Your task to perform on an android device: add a label to a message in the gmail app Image 0: 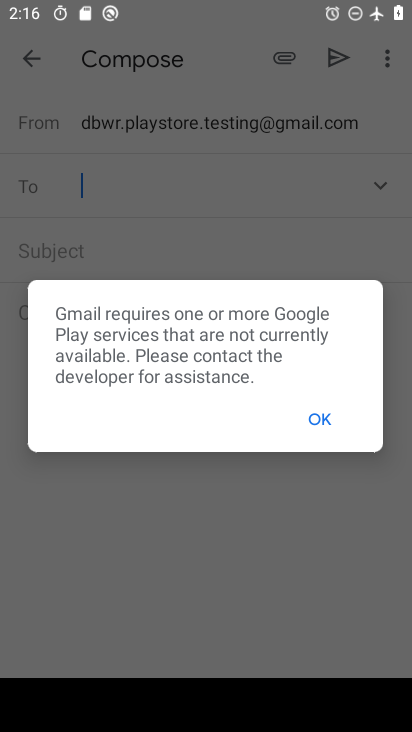
Step 0: press home button
Your task to perform on an android device: add a label to a message in the gmail app Image 1: 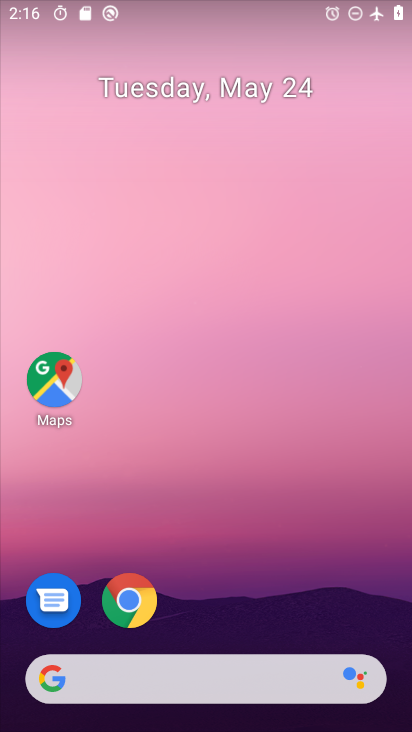
Step 1: drag from (259, 560) to (280, 157)
Your task to perform on an android device: add a label to a message in the gmail app Image 2: 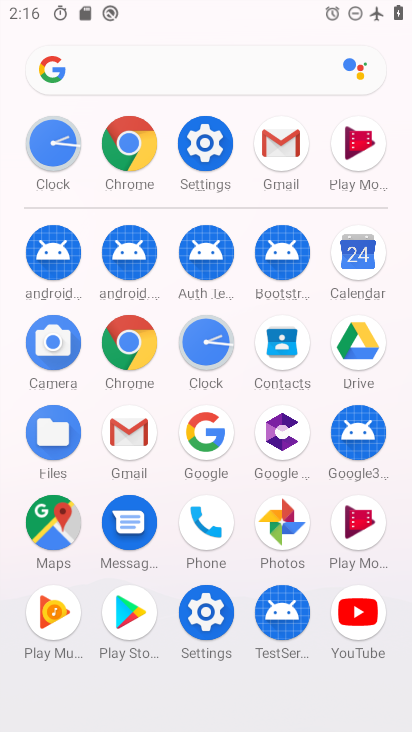
Step 2: click (275, 142)
Your task to perform on an android device: add a label to a message in the gmail app Image 3: 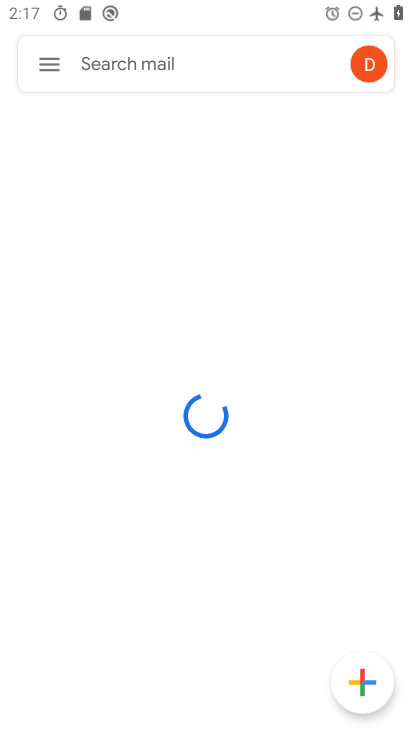
Step 3: click (45, 64)
Your task to perform on an android device: add a label to a message in the gmail app Image 4: 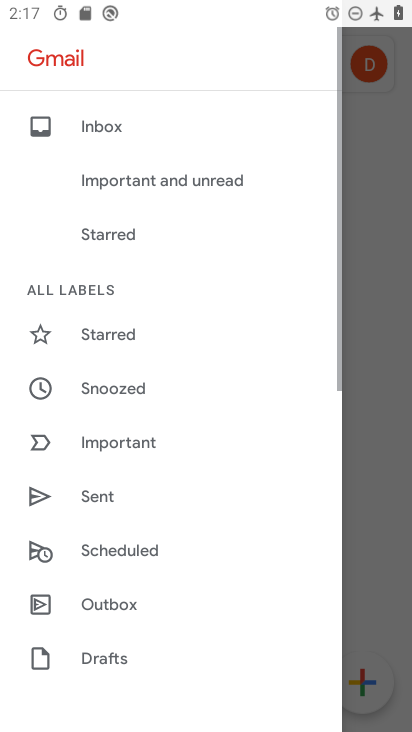
Step 4: drag from (205, 576) to (222, 112)
Your task to perform on an android device: add a label to a message in the gmail app Image 5: 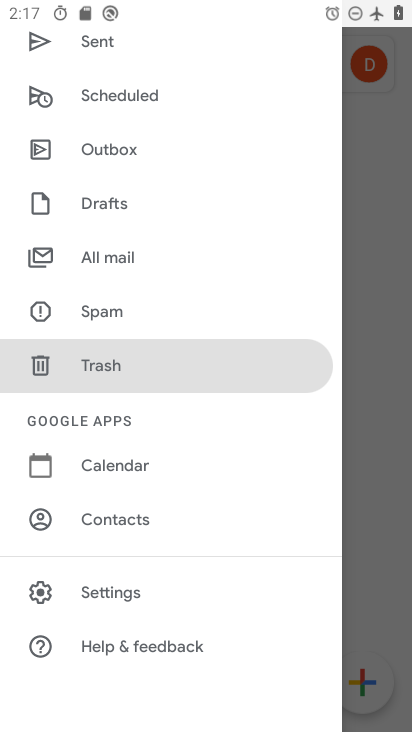
Step 5: click (114, 272)
Your task to perform on an android device: add a label to a message in the gmail app Image 6: 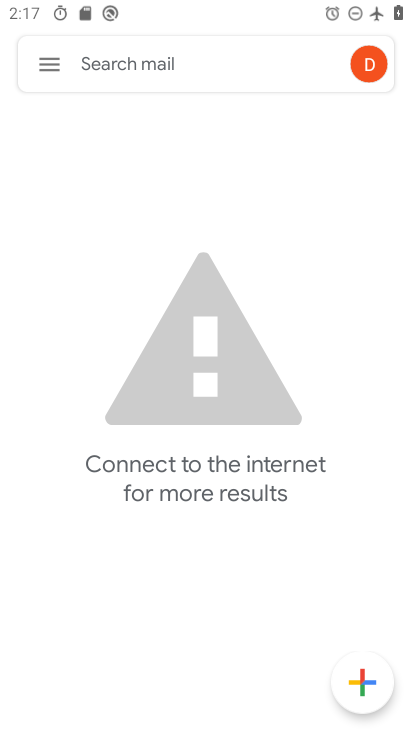
Step 6: task complete